Your task to perform on an android device: Go to Google Image 0: 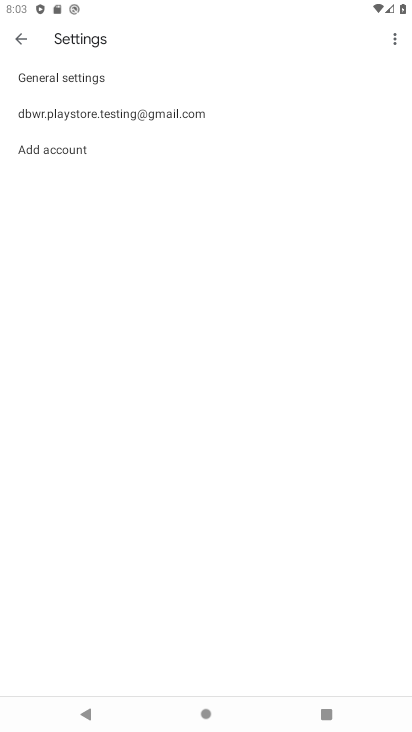
Step 0: press home button
Your task to perform on an android device: Go to Google Image 1: 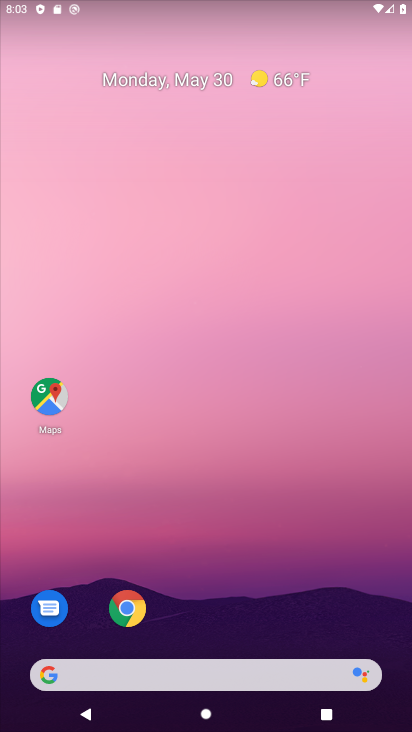
Step 1: drag from (232, 721) to (208, 108)
Your task to perform on an android device: Go to Google Image 2: 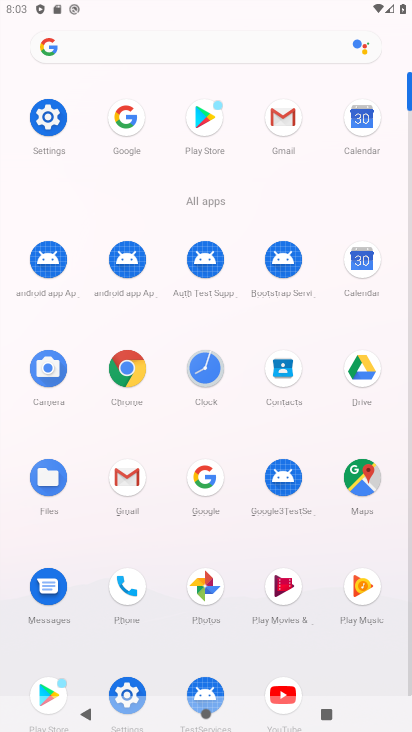
Step 2: click (208, 475)
Your task to perform on an android device: Go to Google Image 3: 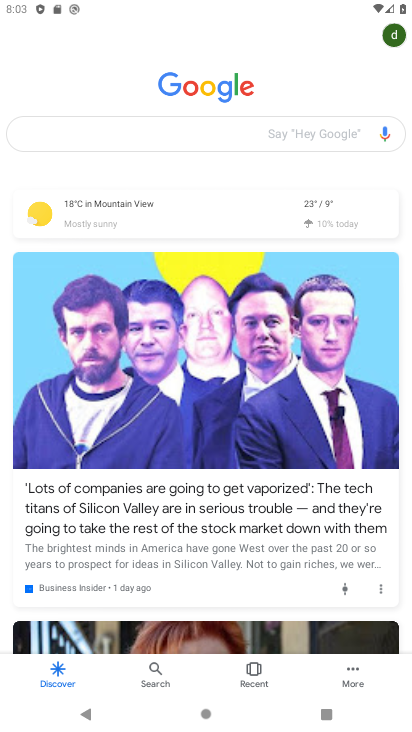
Step 3: task complete